Your task to perform on an android device: turn smart compose on in the gmail app Image 0: 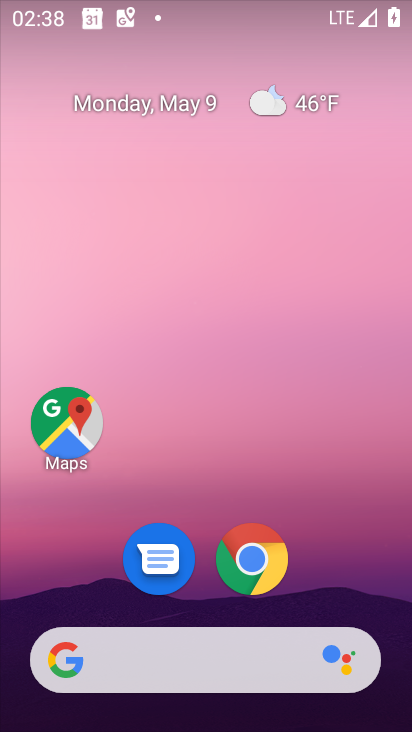
Step 0: drag from (348, 511) to (263, 7)
Your task to perform on an android device: turn smart compose on in the gmail app Image 1: 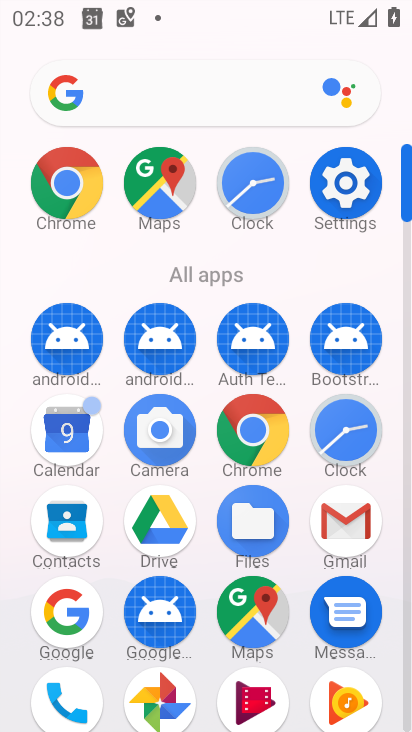
Step 1: click (344, 516)
Your task to perform on an android device: turn smart compose on in the gmail app Image 2: 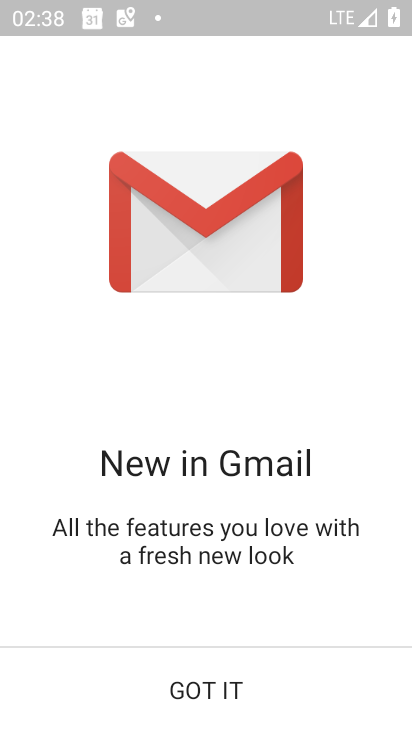
Step 2: click (207, 687)
Your task to perform on an android device: turn smart compose on in the gmail app Image 3: 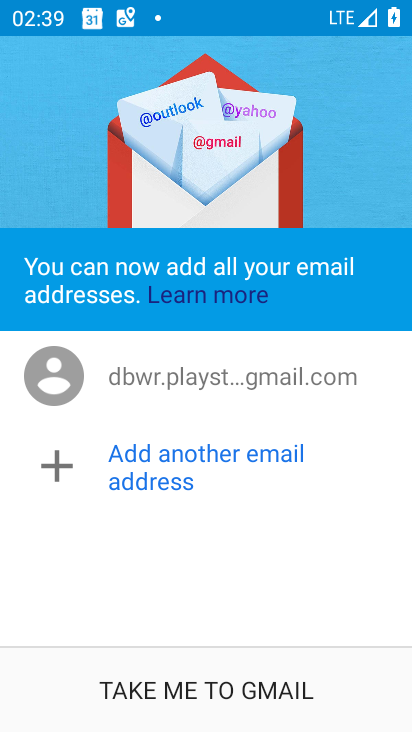
Step 3: click (208, 686)
Your task to perform on an android device: turn smart compose on in the gmail app Image 4: 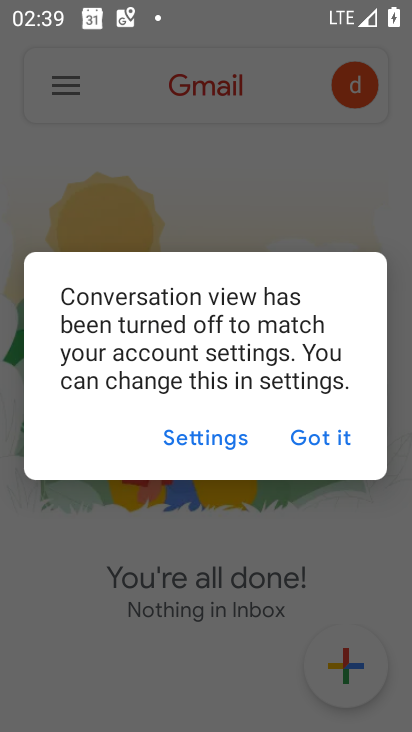
Step 4: click (216, 429)
Your task to perform on an android device: turn smart compose on in the gmail app Image 5: 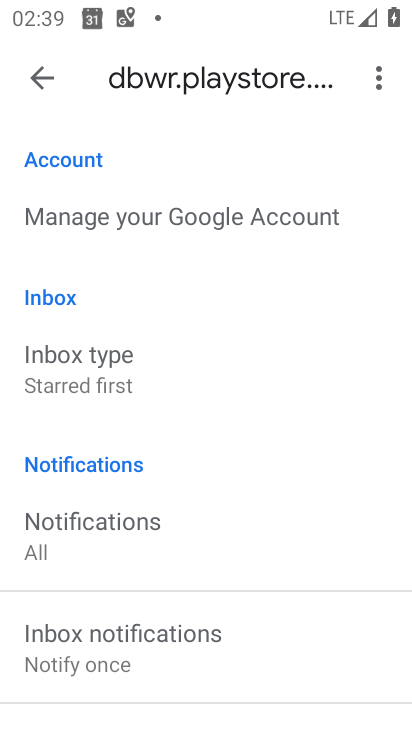
Step 5: task complete